Your task to perform on an android device: Search for vegetarian restaurants on Maps Image 0: 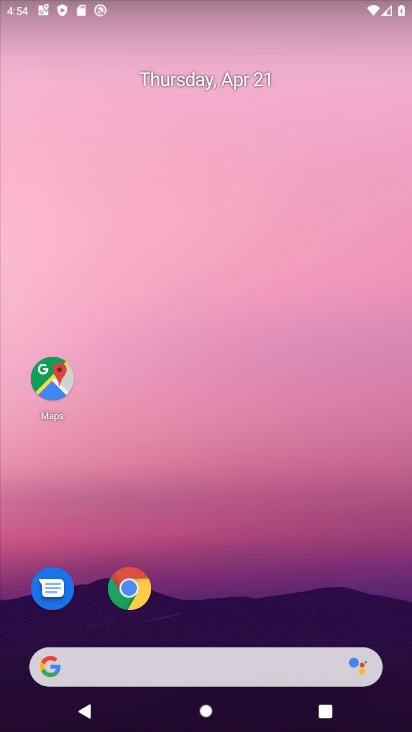
Step 0: click (45, 375)
Your task to perform on an android device: Search for vegetarian restaurants on Maps Image 1: 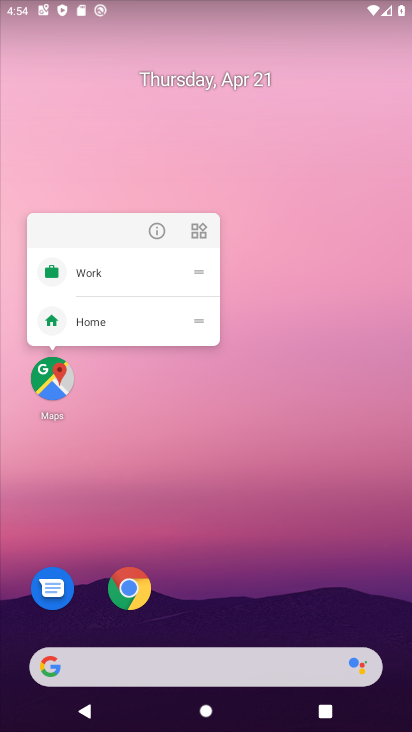
Step 1: click (49, 378)
Your task to perform on an android device: Search for vegetarian restaurants on Maps Image 2: 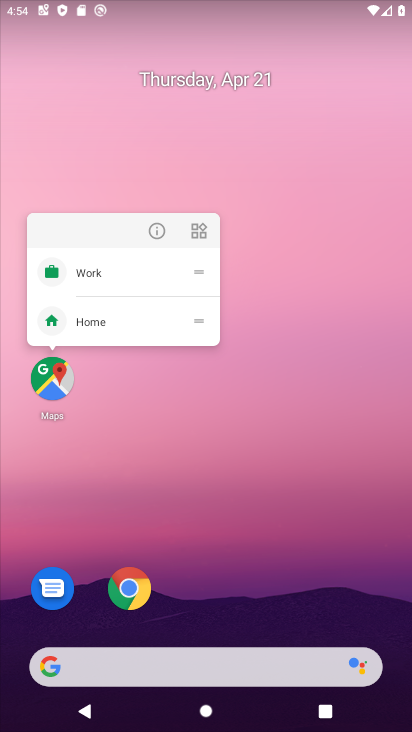
Step 2: click (53, 373)
Your task to perform on an android device: Search for vegetarian restaurants on Maps Image 3: 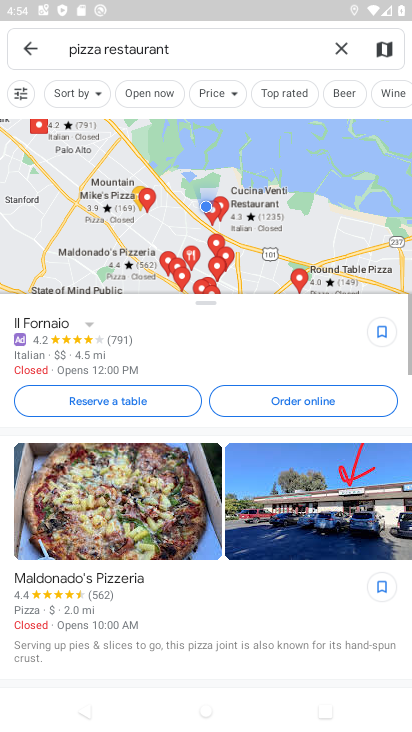
Step 3: click (345, 49)
Your task to perform on an android device: Search for vegetarian restaurants on Maps Image 4: 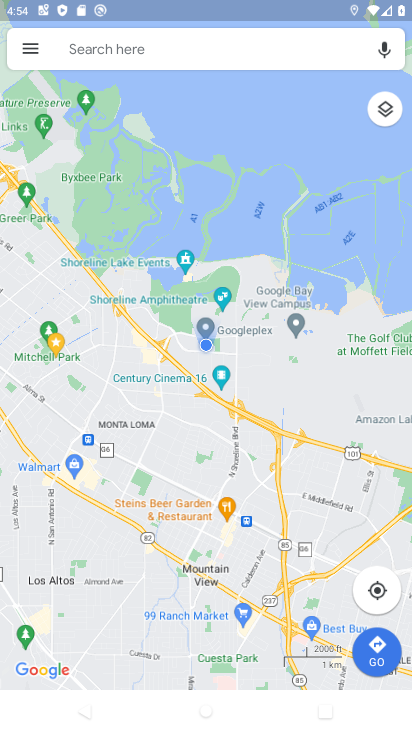
Step 4: click (173, 42)
Your task to perform on an android device: Search for vegetarian restaurants on Maps Image 5: 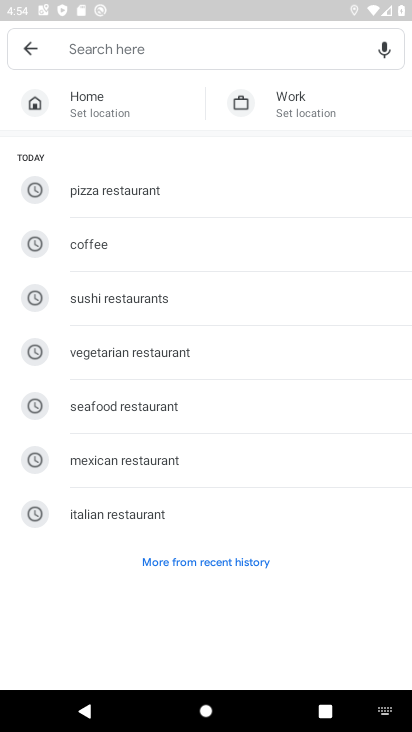
Step 5: click (127, 349)
Your task to perform on an android device: Search for vegetarian restaurants on Maps Image 6: 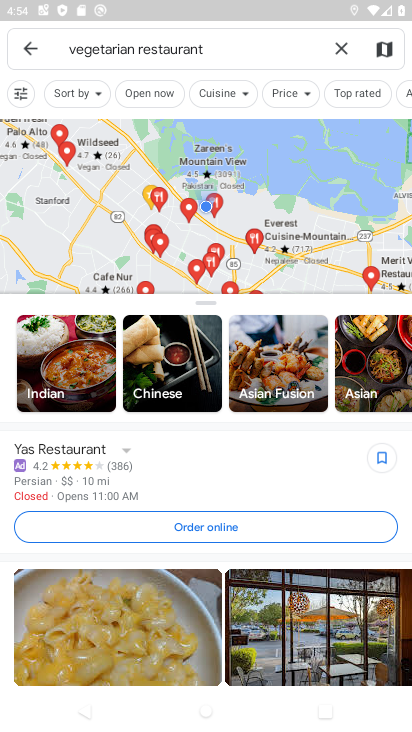
Step 6: task complete